Your task to perform on an android device: turn on priority inbox in the gmail app Image 0: 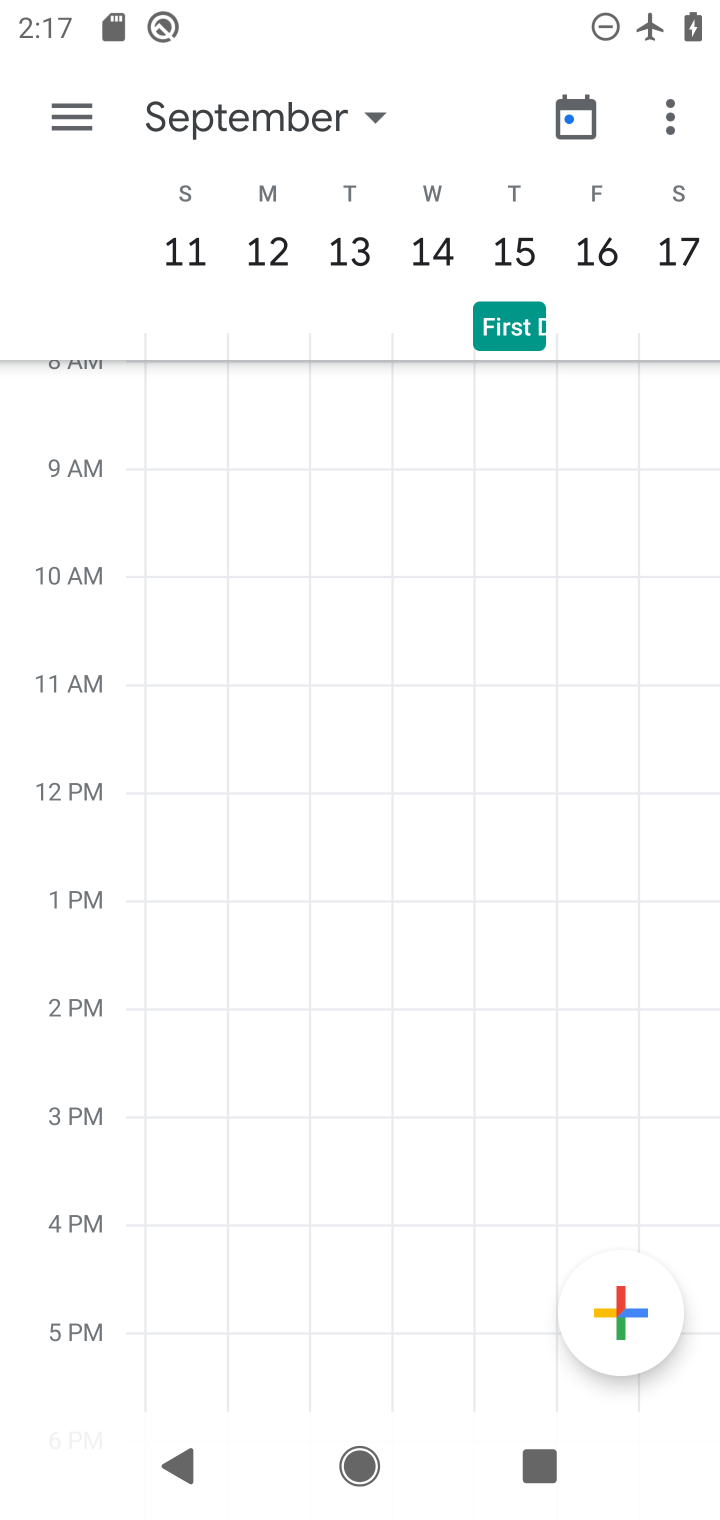
Step 0: press home button
Your task to perform on an android device: turn on priority inbox in the gmail app Image 1: 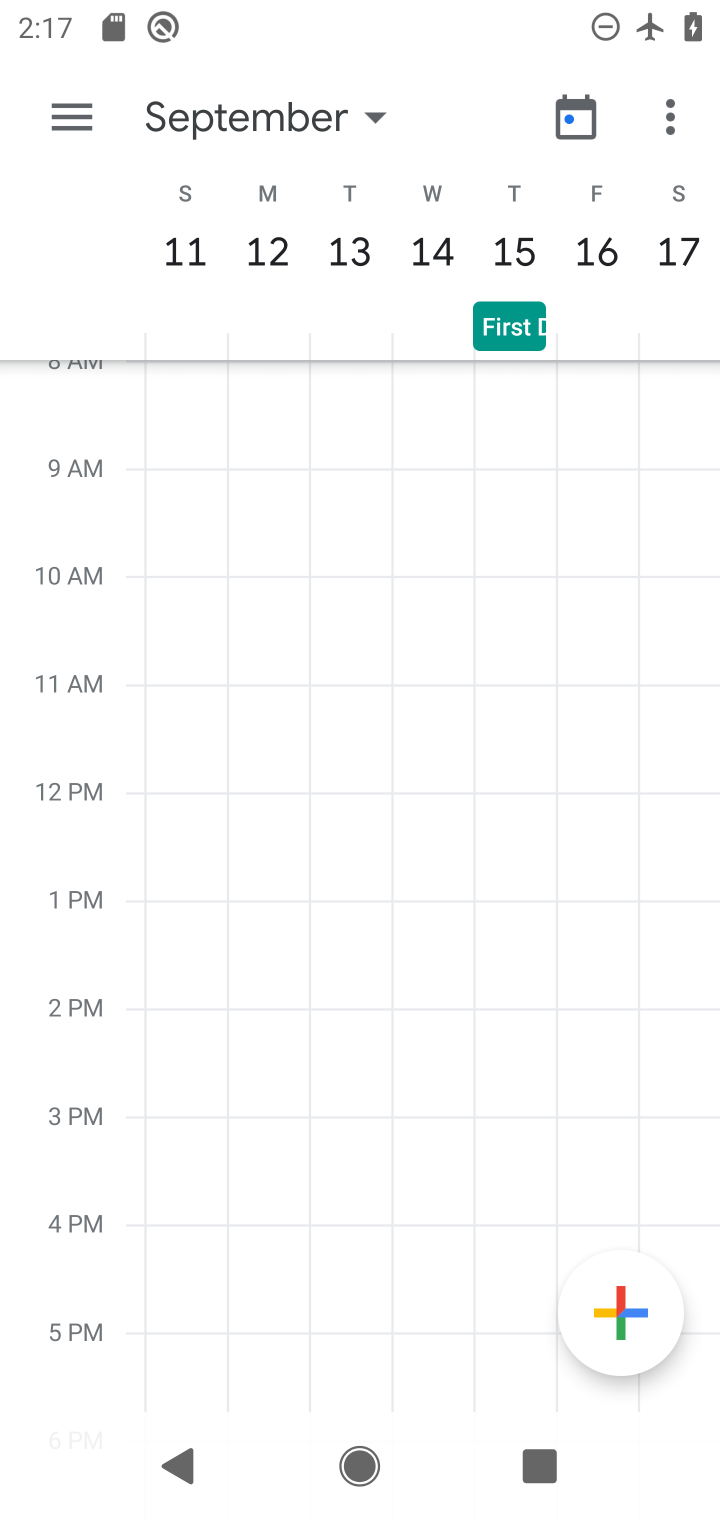
Step 1: press home button
Your task to perform on an android device: turn on priority inbox in the gmail app Image 2: 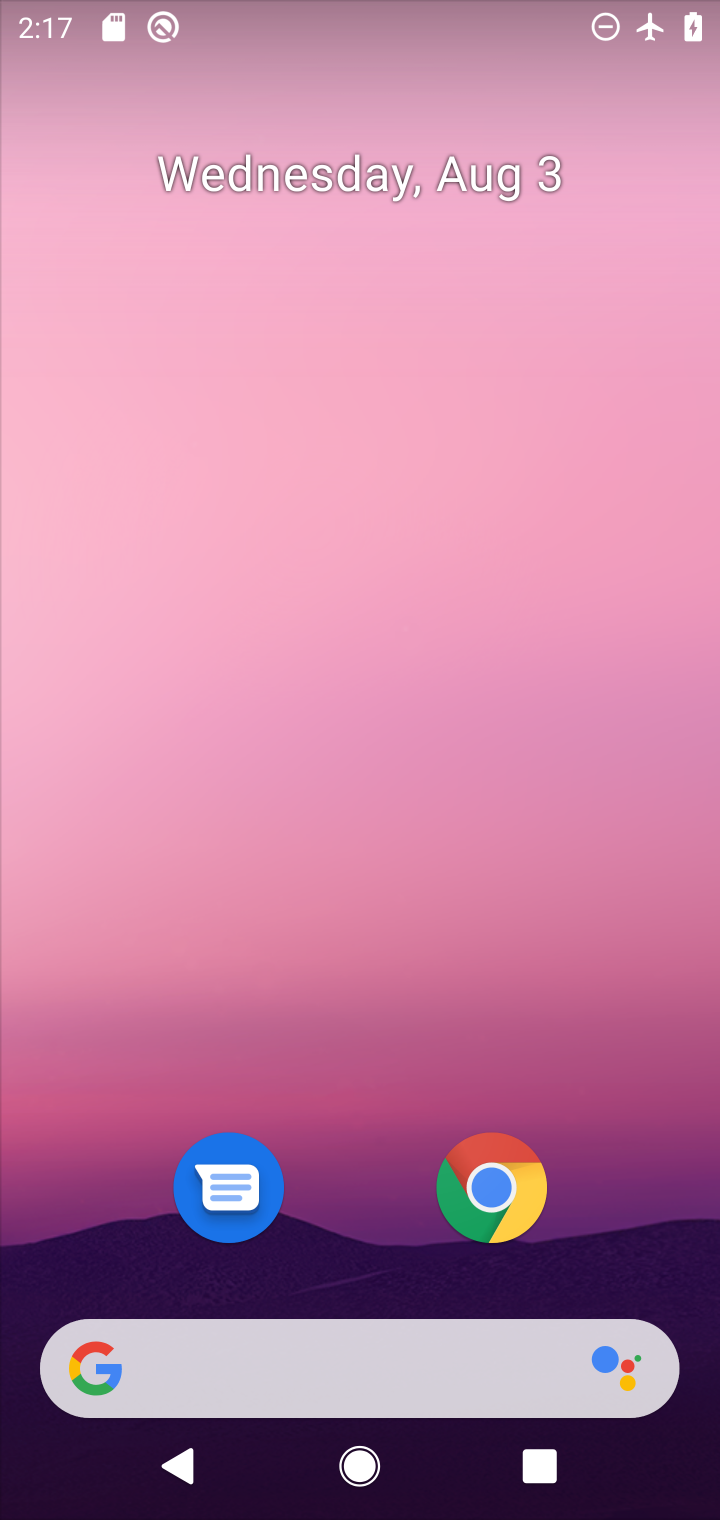
Step 2: drag from (628, 1235) to (621, 101)
Your task to perform on an android device: turn on priority inbox in the gmail app Image 3: 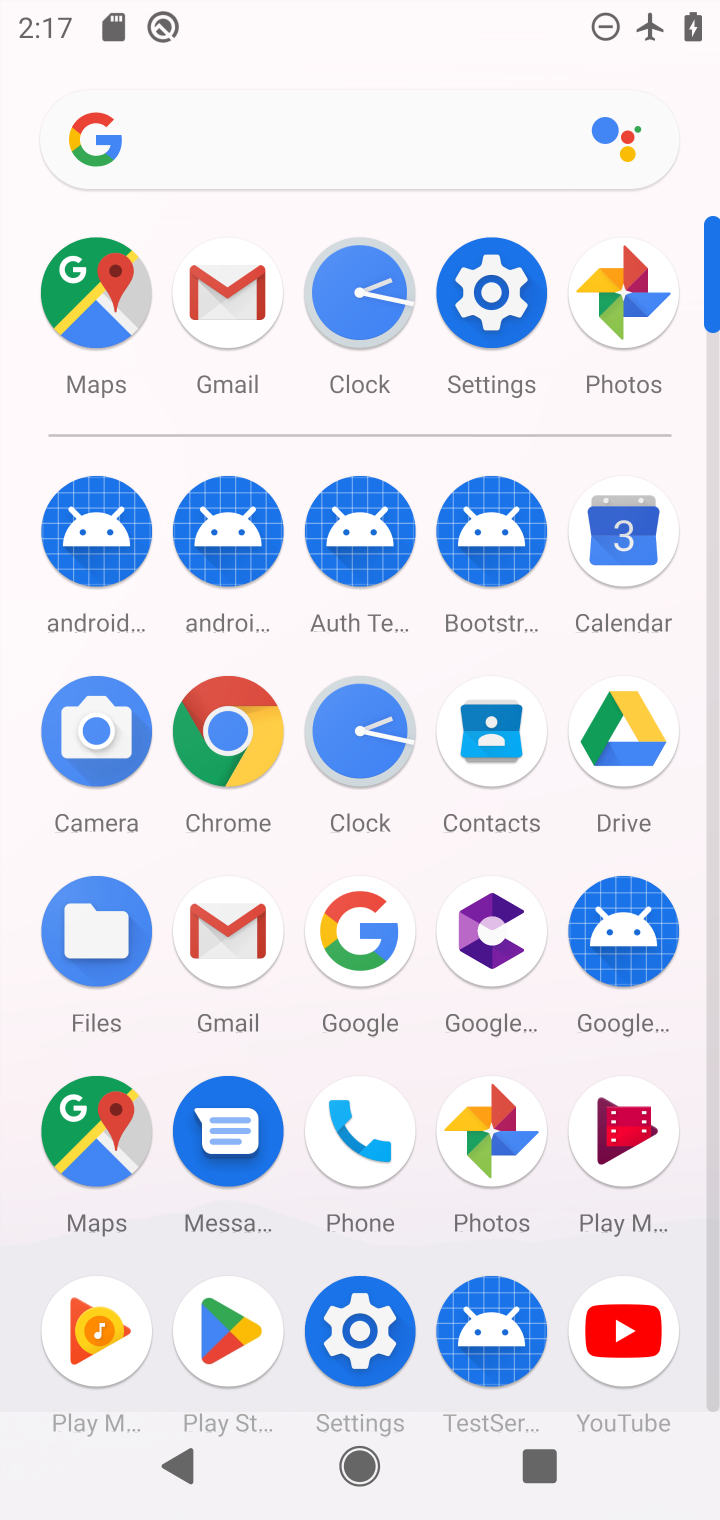
Step 3: click (238, 308)
Your task to perform on an android device: turn on priority inbox in the gmail app Image 4: 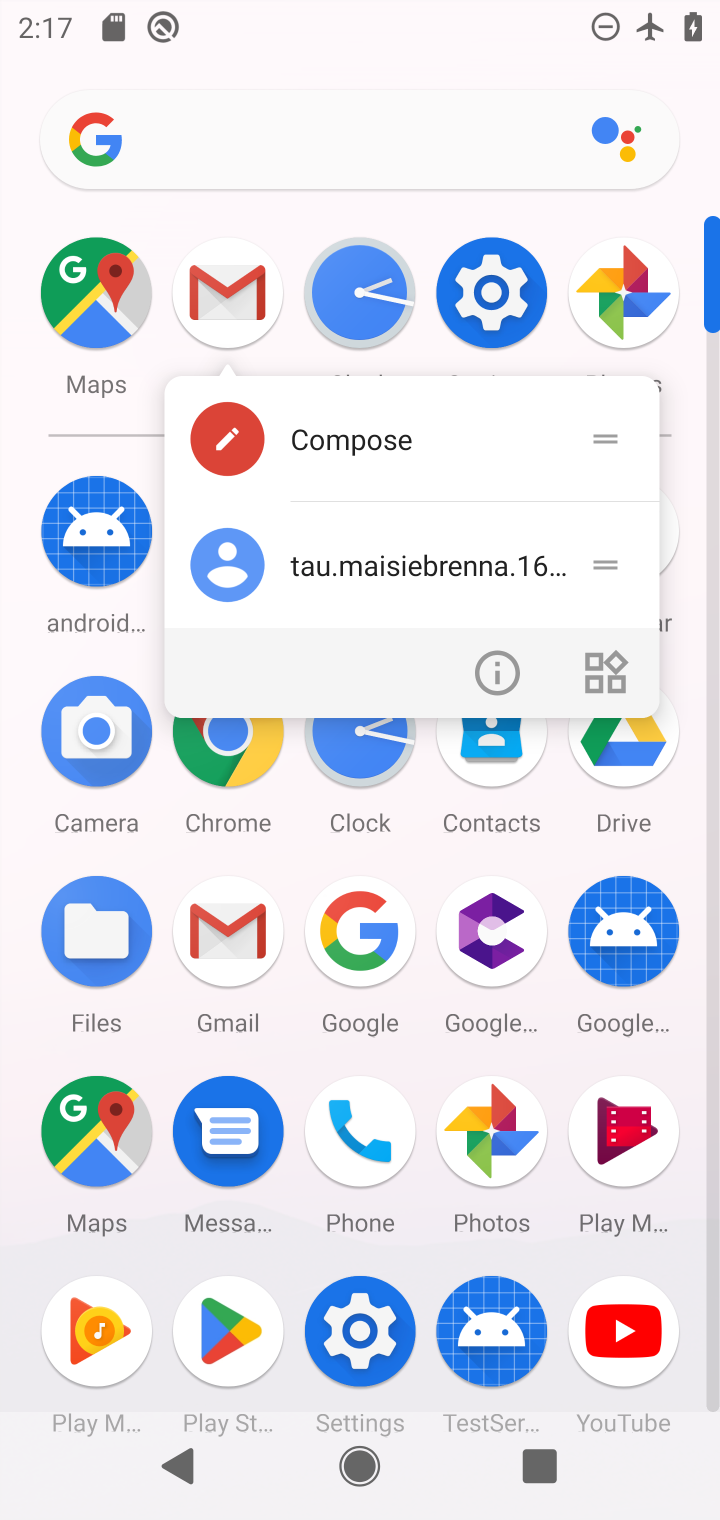
Step 4: click (238, 308)
Your task to perform on an android device: turn on priority inbox in the gmail app Image 5: 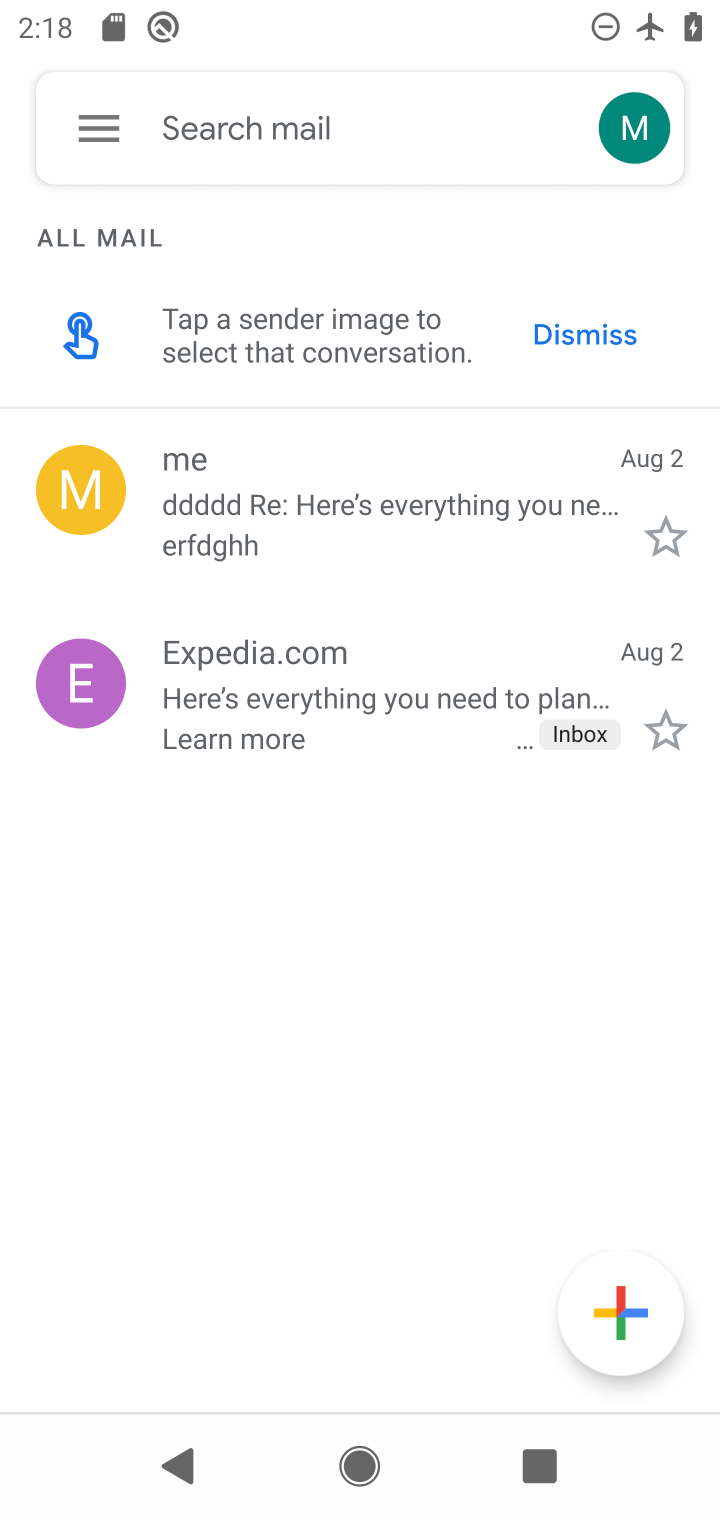
Step 5: click (94, 128)
Your task to perform on an android device: turn on priority inbox in the gmail app Image 6: 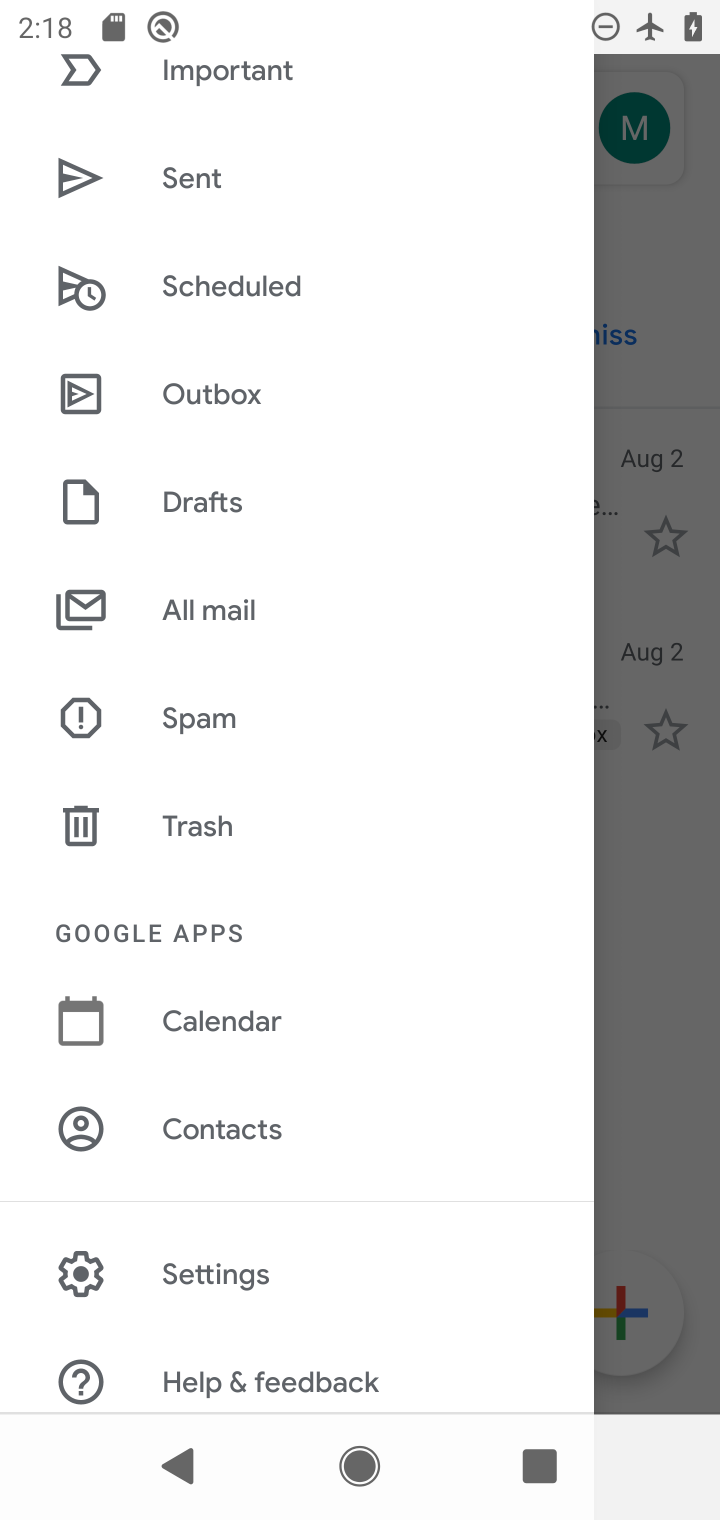
Step 6: click (215, 1266)
Your task to perform on an android device: turn on priority inbox in the gmail app Image 7: 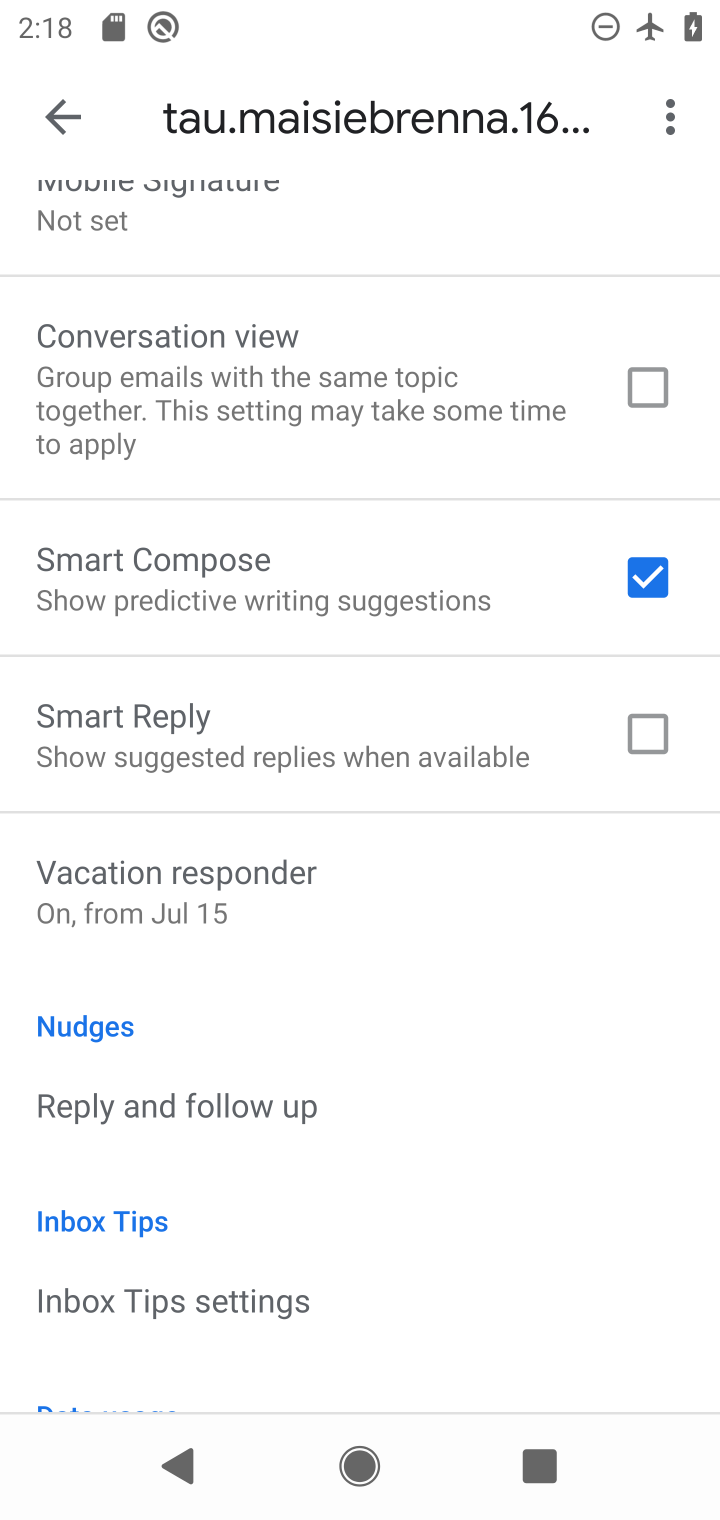
Step 7: drag from (332, 455) to (349, 1313)
Your task to perform on an android device: turn on priority inbox in the gmail app Image 8: 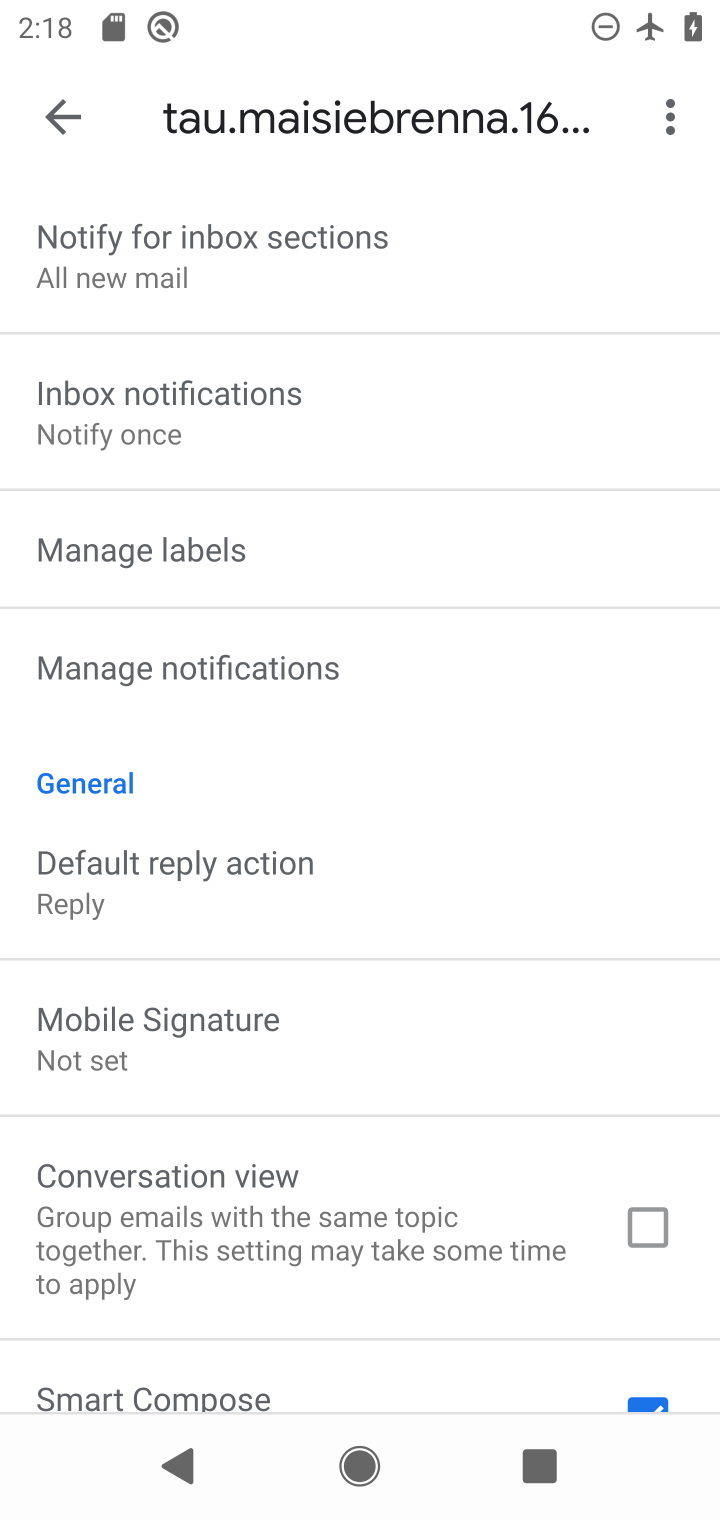
Step 8: drag from (386, 470) to (400, 1146)
Your task to perform on an android device: turn on priority inbox in the gmail app Image 9: 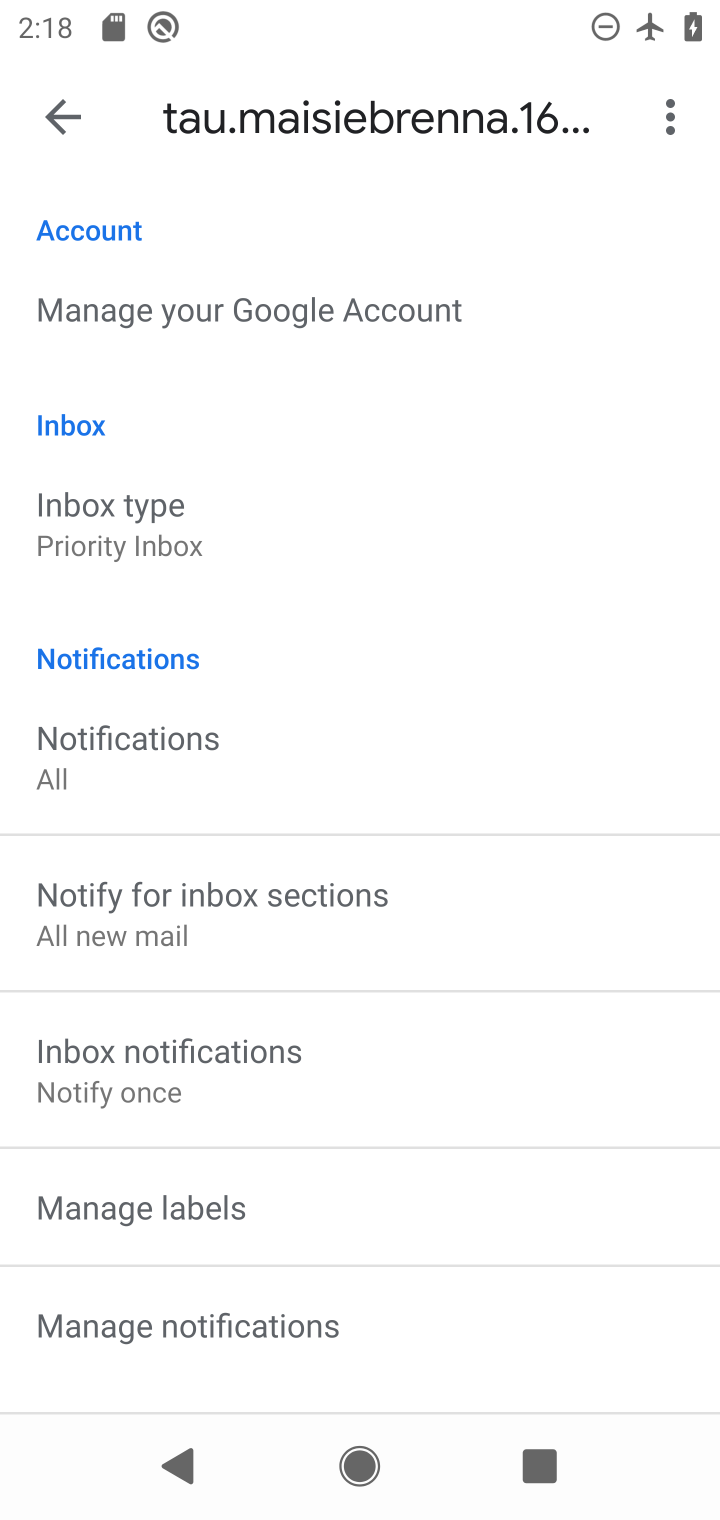
Step 9: click (161, 529)
Your task to perform on an android device: turn on priority inbox in the gmail app Image 10: 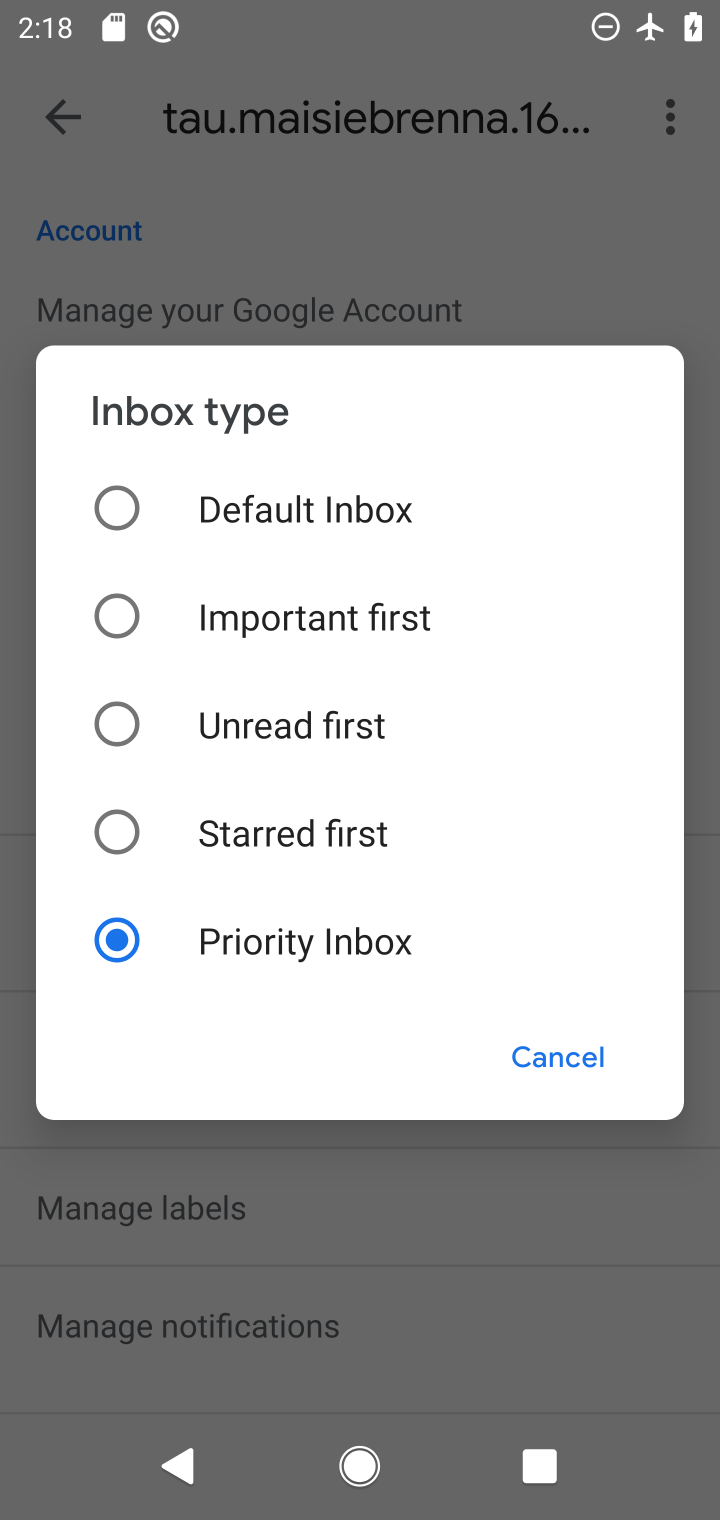
Step 10: click (124, 931)
Your task to perform on an android device: turn on priority inbox in the gmail app Image 11: 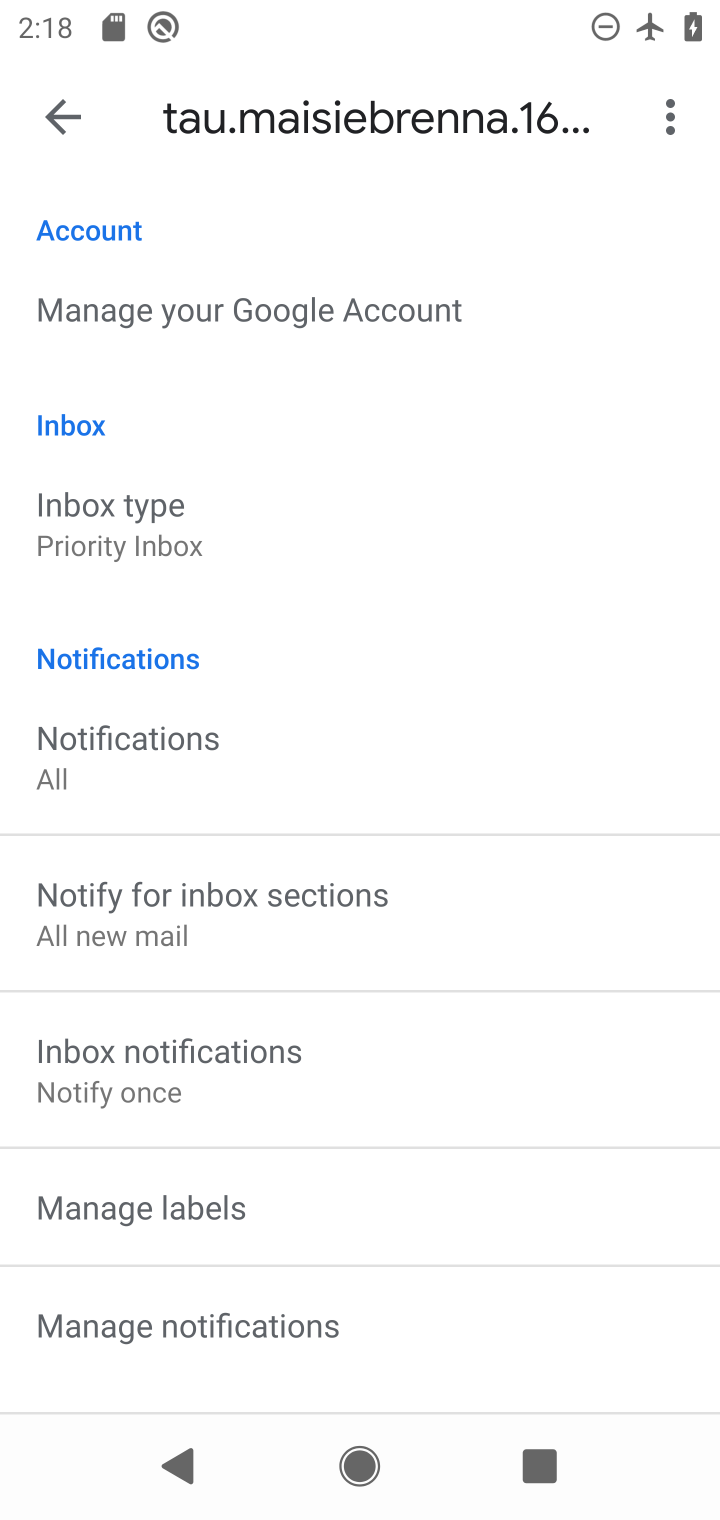
Step 11: task complete